Your task to perform on an android device: Turn off the flashlight Image 0: 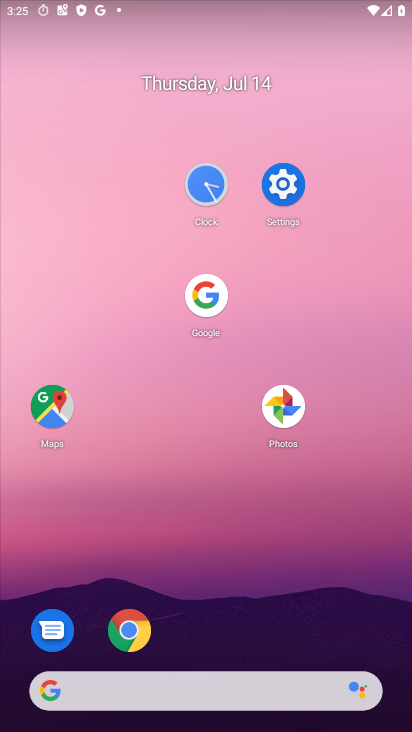
Step 0: drag from (319, 0) to (301, 364)
Your task to perform on an android device: Turn off the flashlight Image 1: 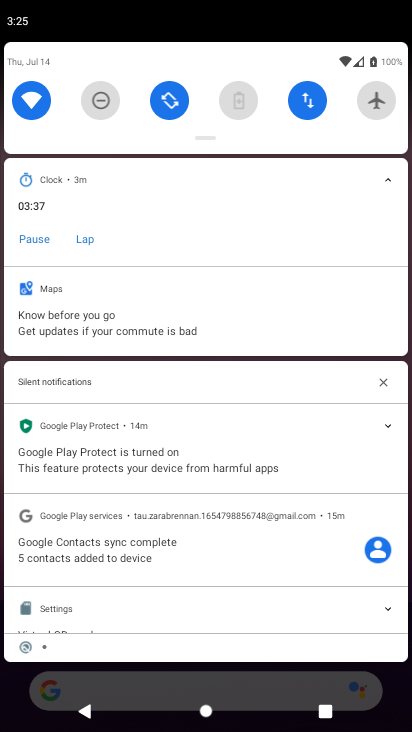
Step 1: task complete